Your task to perform on an android device: turn off airplane mode Image 0: 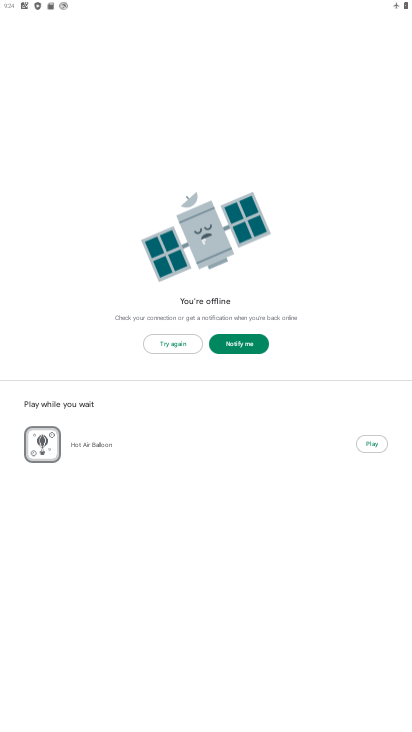
Step 0: press home button
Your task to perform on an android device: turn off airplane mode Image 1: 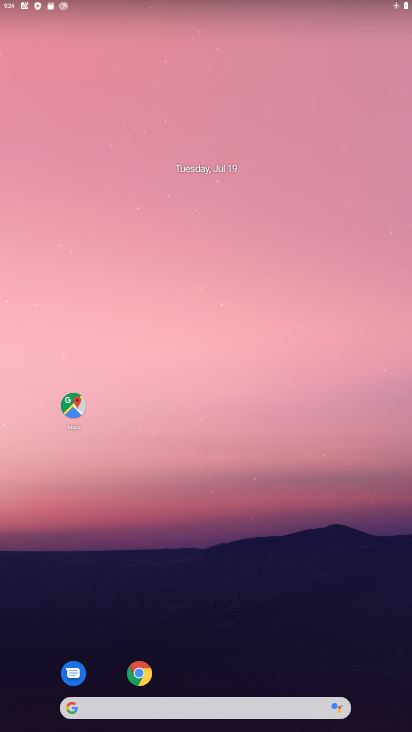
Step 1: drag from (206, 655) to (174, 59)
Your task to perform on an android device: turn off airplane mode Image 2: 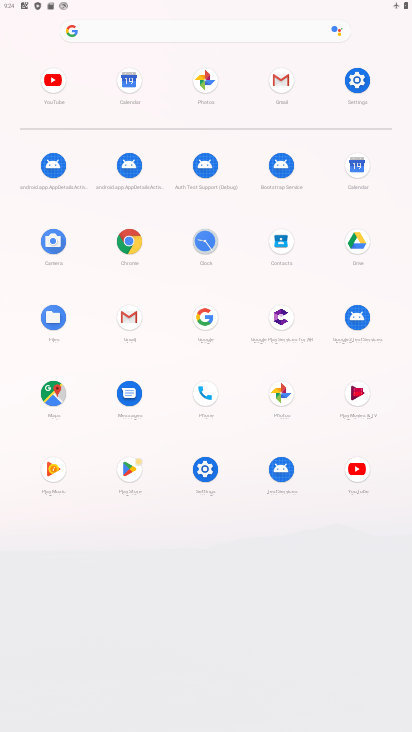
Step 2: click (353, 83)
Your task to perform on an android device: turn off airplane mode Image 3: 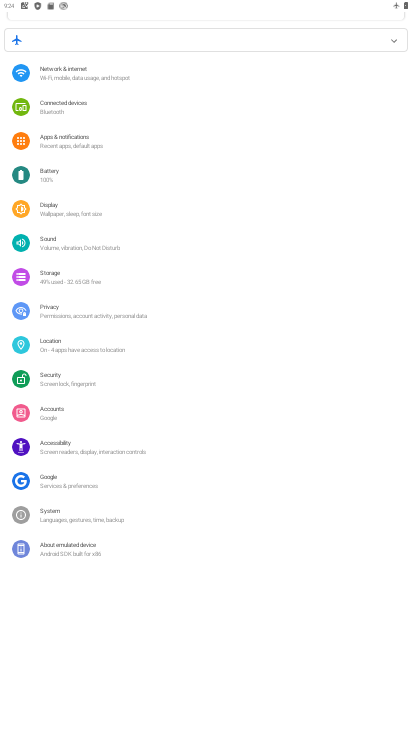
Step 3: click (81, 82)
Your task to perform on an android device: turn off airplane mode Image 4: 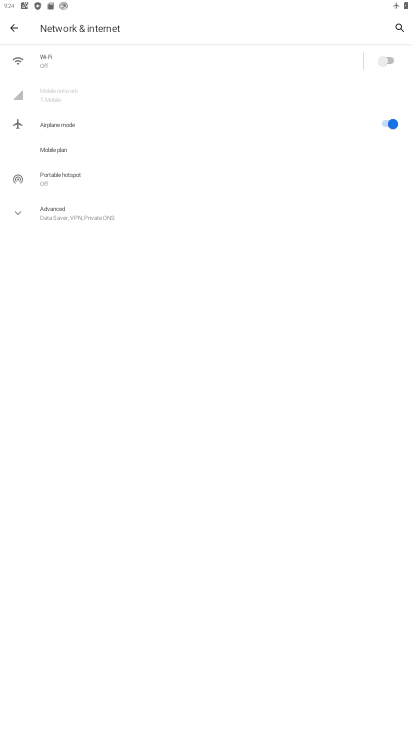
Step 4: click (387, 126)
Your task to perform on an android device: turn off airplane mode Image 5: 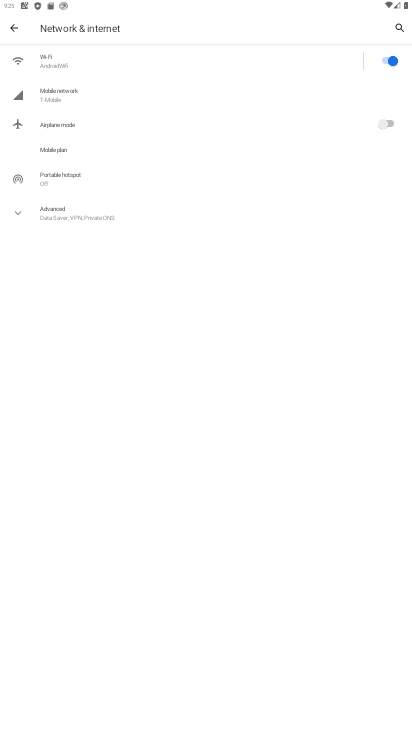
Step 5: task complete